Your task to perform on an android device: turn off notifications in google photos Image 0: 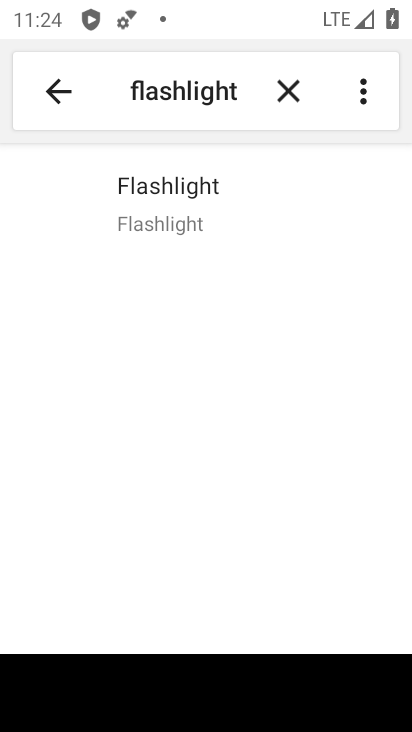
Step 0: press home button
Your task to perform on an android device: turn off notifications in google photos Image 1: 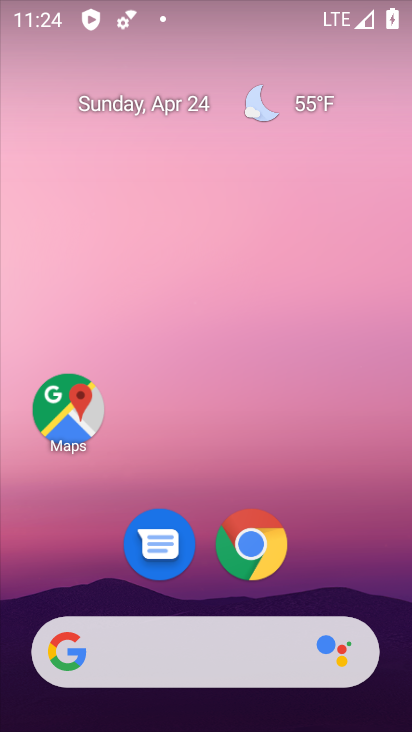
Step 1: drag from (360, 542) to (121, 148)
Your task to perform on an android device: turn off notifications in google photos Image 2: 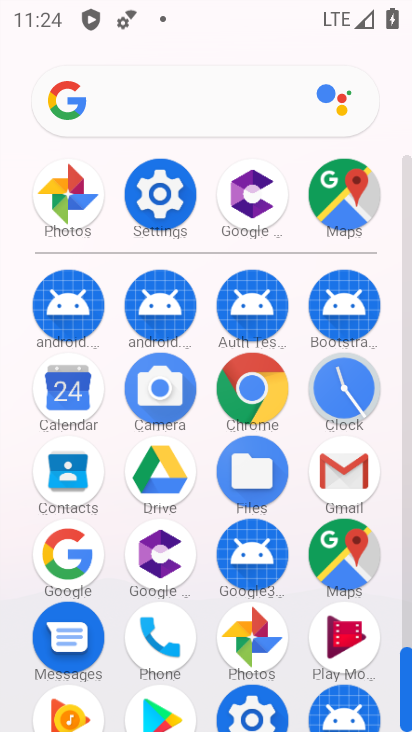
Step 2: click (88, 210)
Your task to perform on an android device: turn off notifications in google photos Image 3: 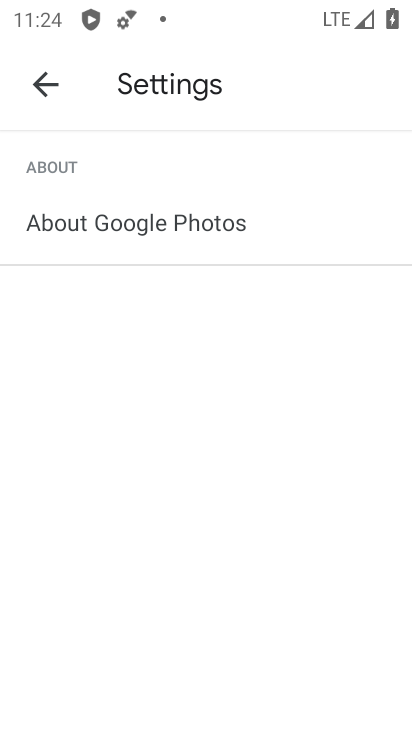
Step 3: click (45, 82)
Your task to perform on an android device: turn off notifications in google photos Image 4: 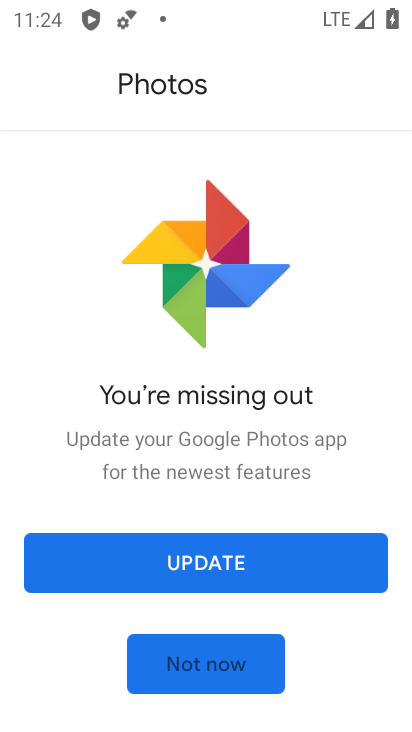
Step 4: click (237, 658)
Your task to perform on an android device: turn off notifications in google photos Image 5: 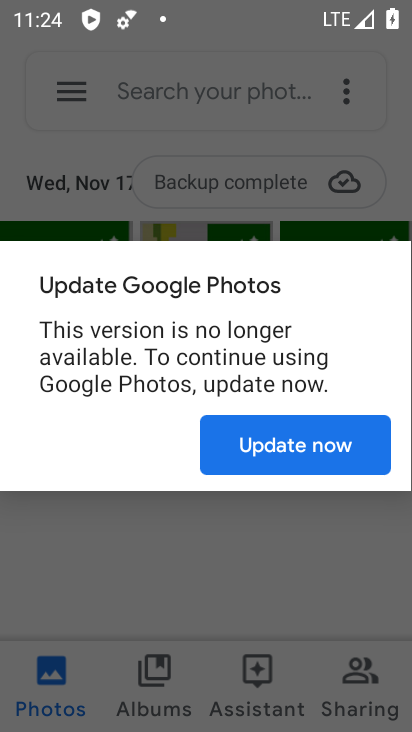
Step 5: click (281, 446)
Your task to perform on an android device: turn off notifications in google photos Image 6: 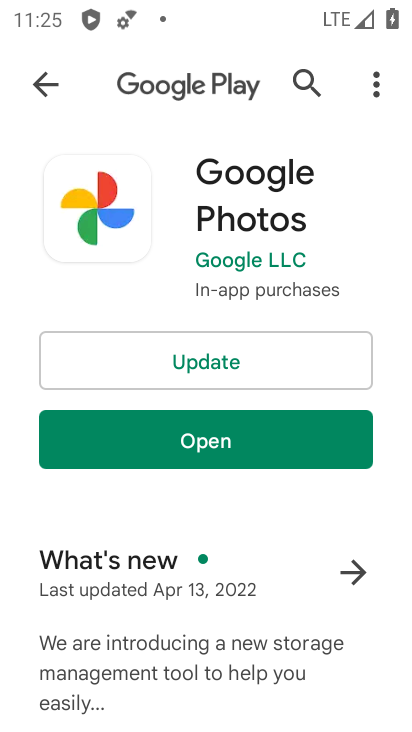
Step 6: press back button
Your task to perform on an android device: turn off notifications in google photos Image 7: 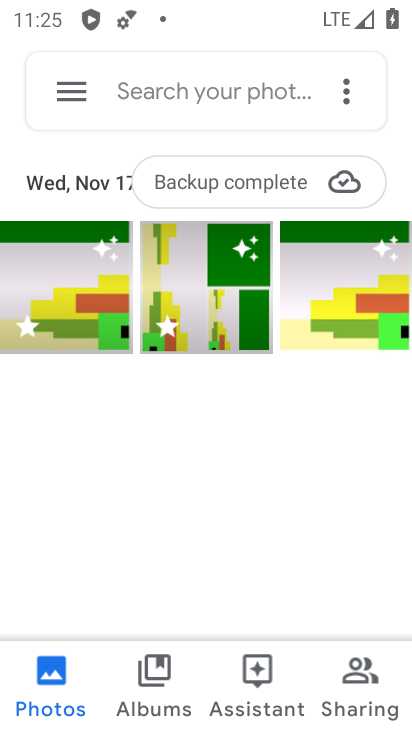
Step 7: click (66, 86)
Your task to perform on an android device: turn off notifications in google photos Image 8: 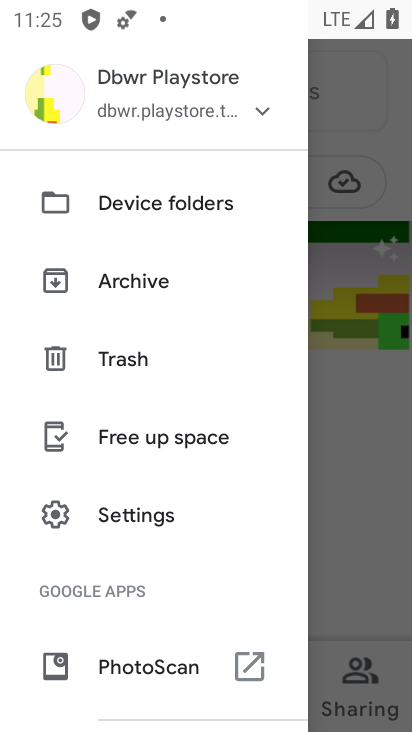
Step 8: click (116, 514)
Your task to perform on an android device: turn off notifications in google photos Image 9: 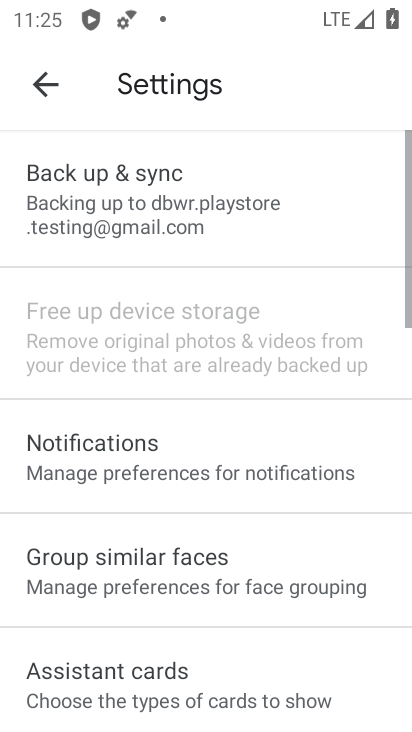
Step 9: click (123, 467)
Your task to perform on an android device: turn off notifications in google photos Image 10: 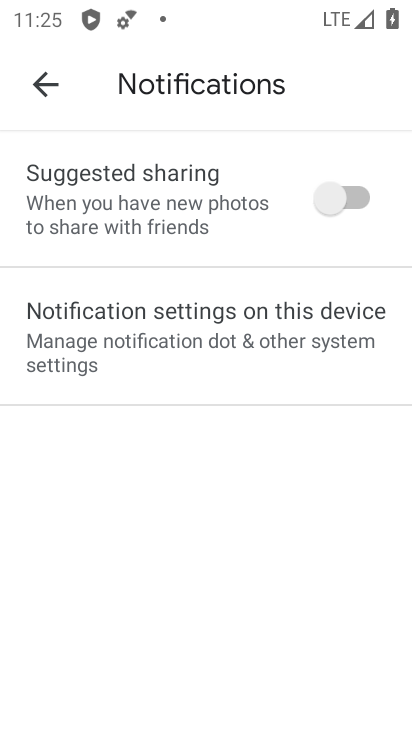
Step 10: click (140, 365)
Your task to perform on an android device: turn off notifications in google photos Image 11: 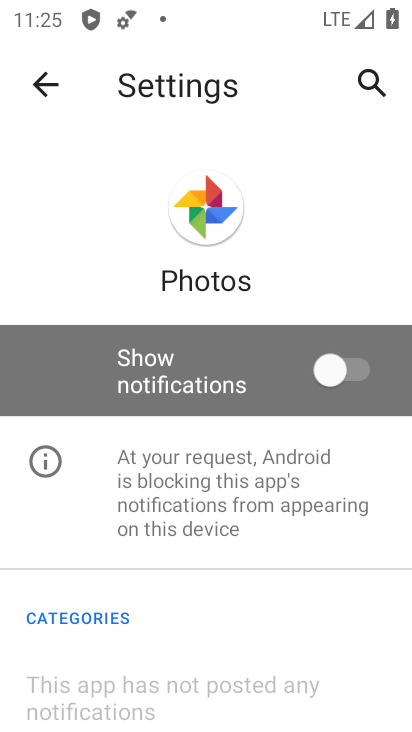
Step 11: task complete